Your task to perform on an android device: refresh tabs in the chrome app Image 0: 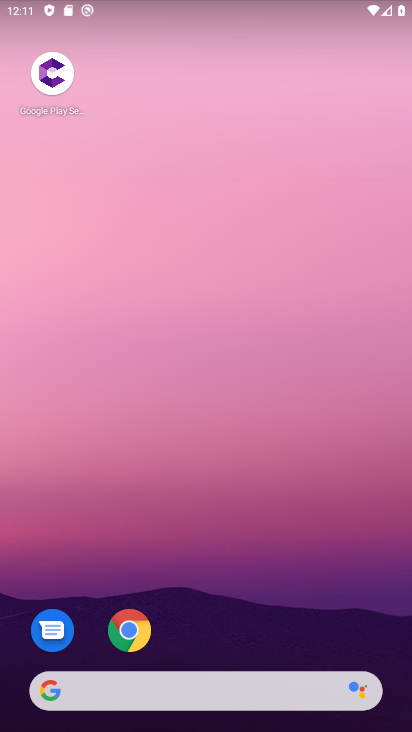
Step 0: click (130, 619)
Your task to perform on an android device: refresh tabs in the chrome app Image 1: 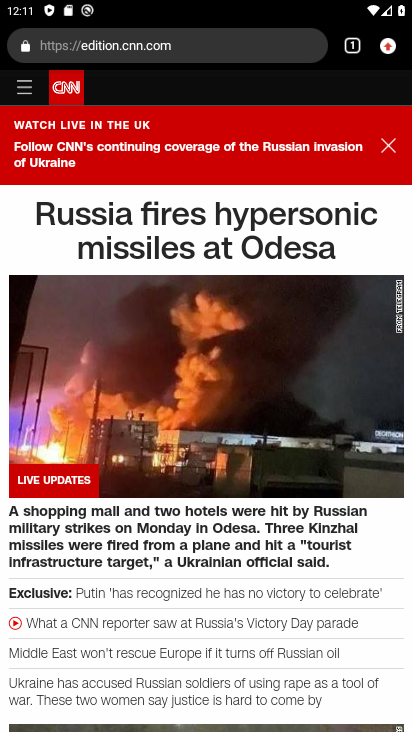
Step 1: click (391, 51)
Your task to perform on an android device: refresh tabs in the chrome app Image 2: 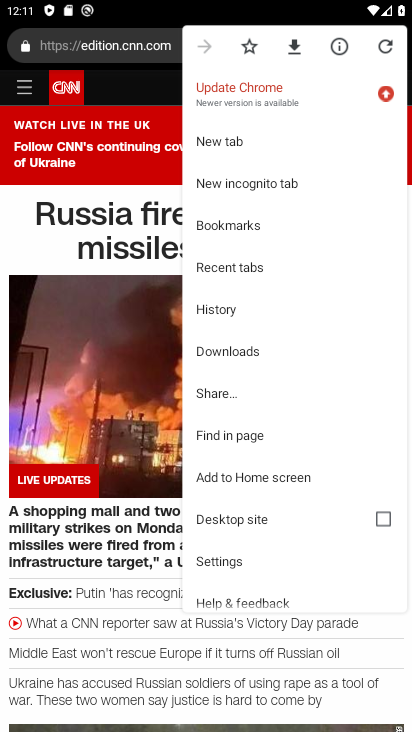
Step 2: click (387, 42)
Your task to perform on an android device: refresh tabs in the chrome app Image 3: 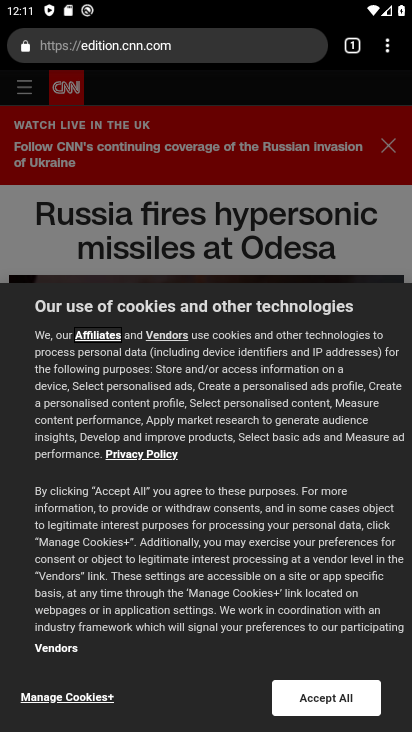
Step 3: task complete